Your task to perform on an android device: all mails in gmail Image 0: 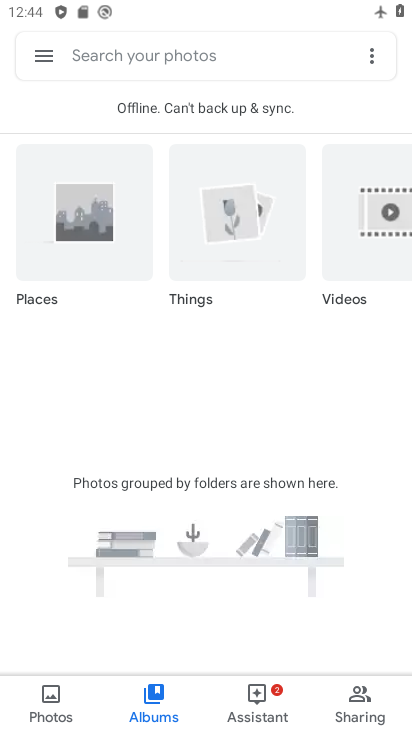
Step 0: press home button
Your task to perform on an android device: all mails in gmail Image 1: 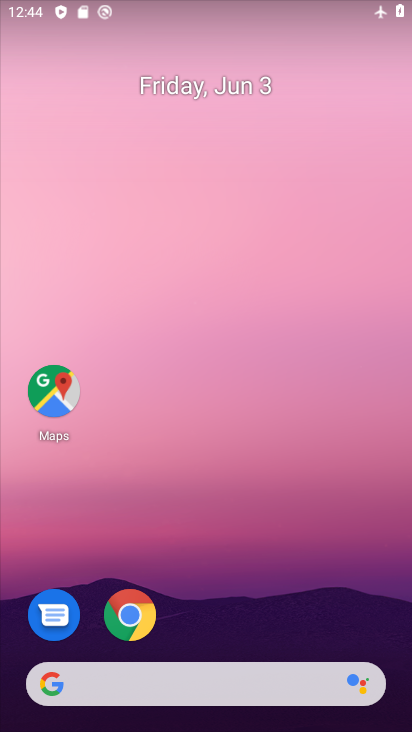
Step 1: drag from (221, 615) to (261, 3)
Your task to perform on an android device: all mails in gmail Image 2: 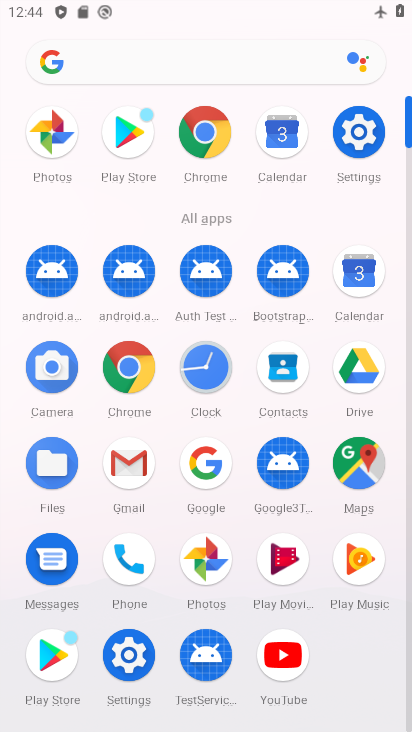
Step 2: click (118, 457)
Your task to perform on an android device: all mails in gmail Image 3: 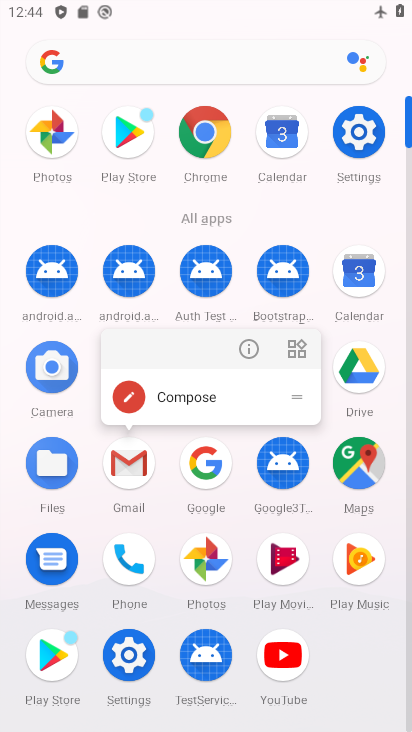
Step 3: click (127, 460)
Your task to perform on an android device: all mails in gmail Image 4: 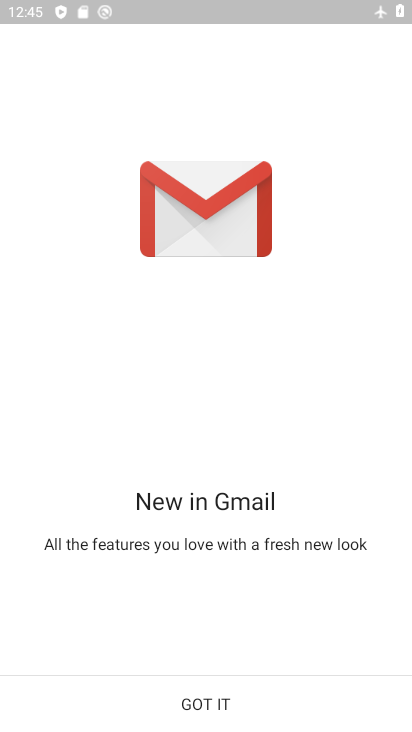
Step 4: click (234, 697)
Your task to perform on an android device: all mails in gmail Image 5: 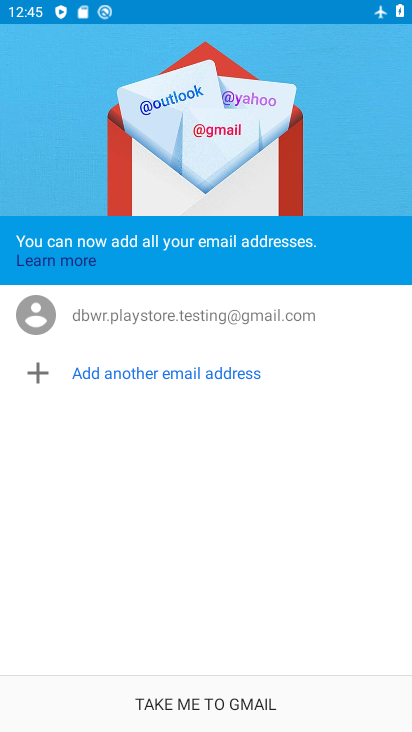
Step 5: click (228, 701)
Your task to perform on an android device: all mails in gmail Image 6: 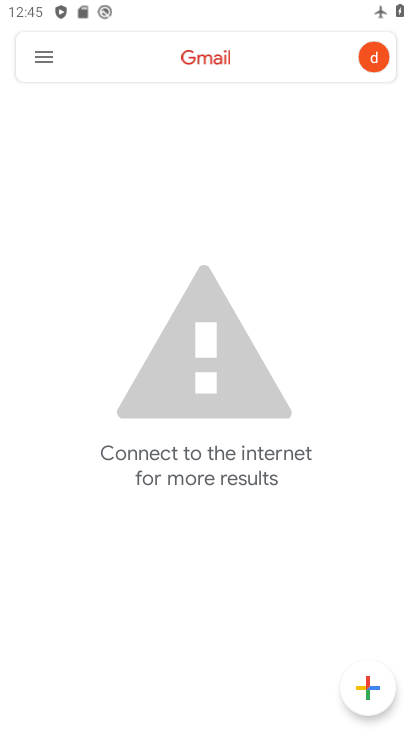
Step 6: click (50, 48)
Your task to perform on an android device: all mails in gmail Image 7: 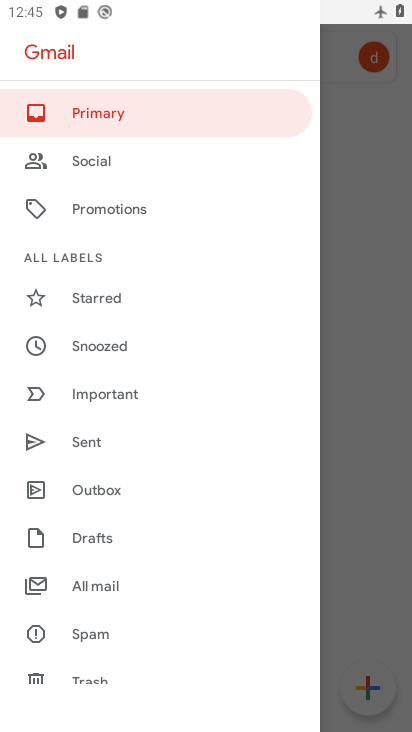
Step 7: click (94, 588)
Your task to perform on an android device: all mails in gmail Image 8: 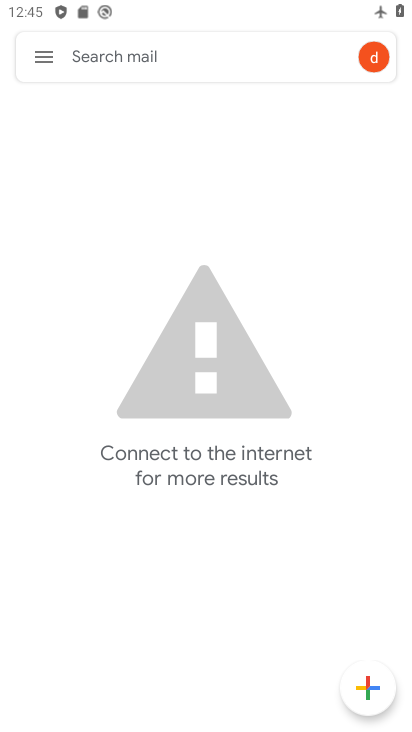
Step 8: task complete